Your task to perform on an android device: Find coffee shops on Maps Image 0: 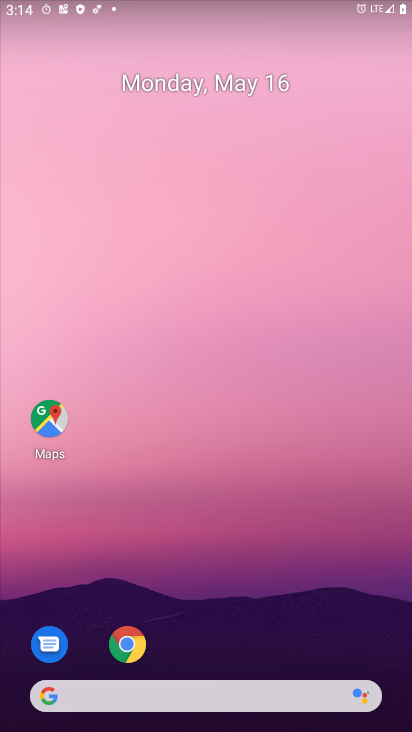
Step 0: drag from (259, 389) to (263, 221)
Your task to perform on an android device: Find coffee shops on Maps Image 1: 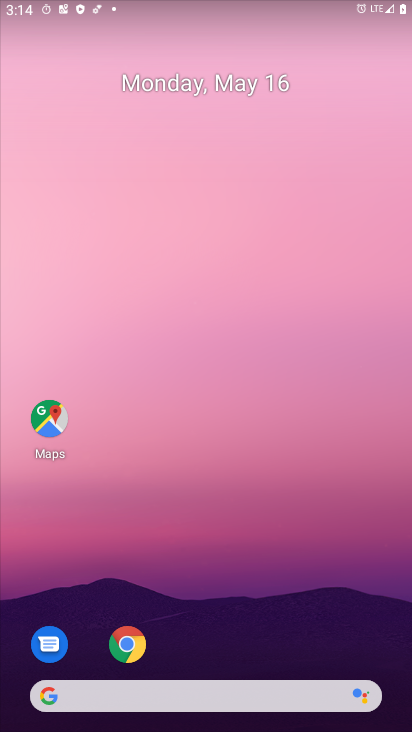
Step 1: drag from (231, 641) to (256, 210)
Your task to perform on an android device: Find coffee shops on Maps Image 2: 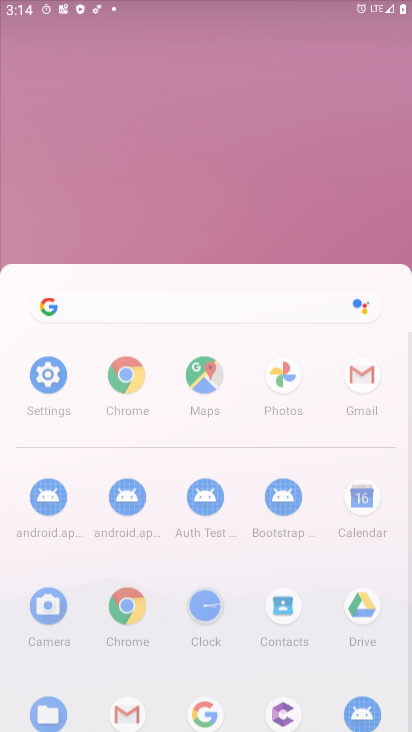
Step 2: click (246, 108)
Your task to perform on an android device: Find coffee shops on Maps Image 3: 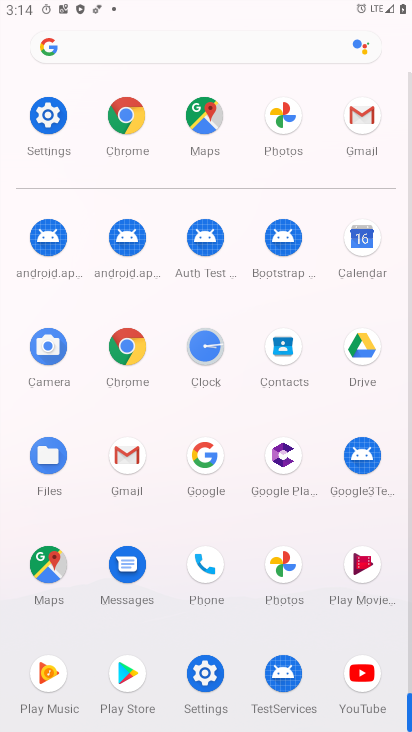
Step 3: click (217, 148)
Your task to perform on an android device: Find coffee shops on Maps Image 4: 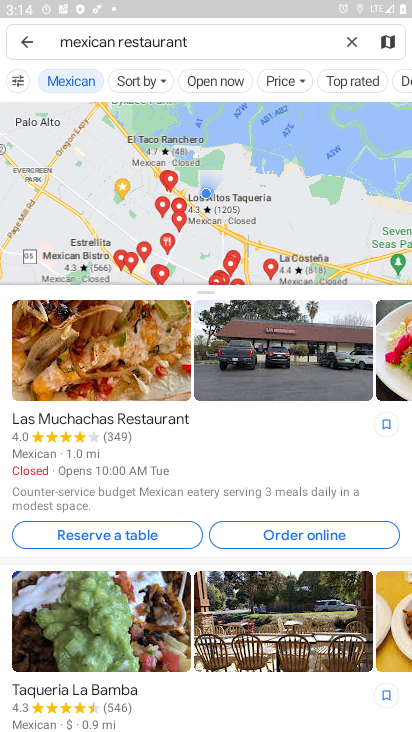
Step 4: click (354, 34)
Your task to perform on an android device: Find coffee shops on Maps Image 5: 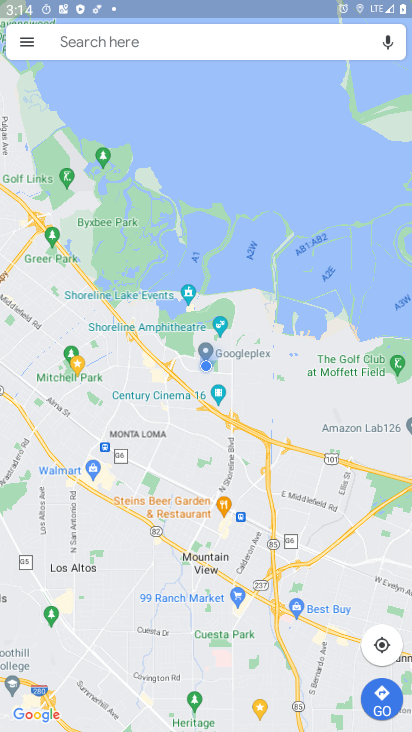
Step 5: click (252, 49)
Your task to perform on an android device: Find coffee shops on Maps Image 6: 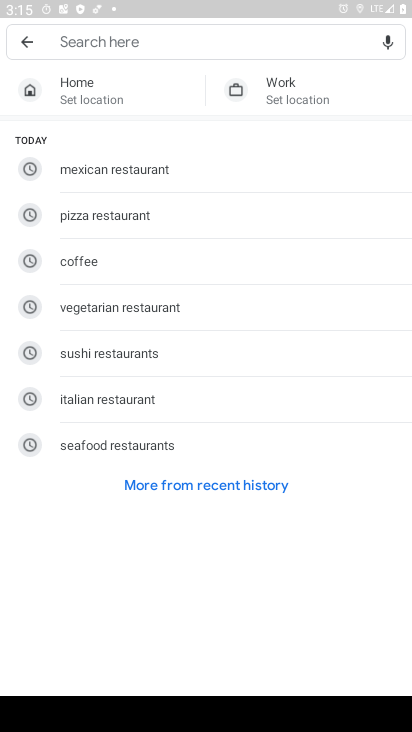
Step 6: type "coffee shops"
Your task to perform on an android device: Find coffee shops on Maps Image 7: 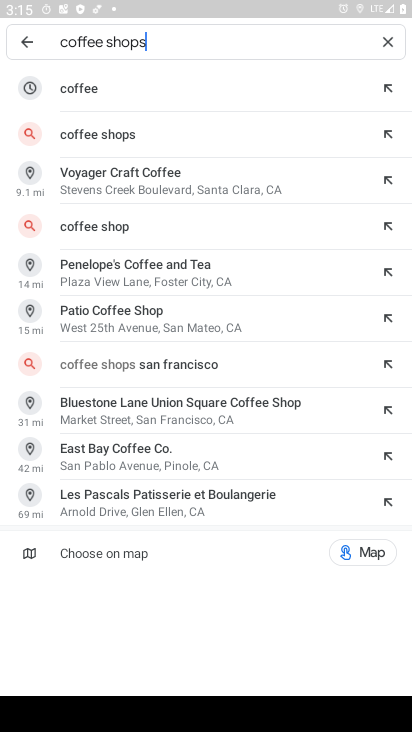
Step 7: click (143, 131)
Your task to perform on an android device: Find coffee shops on Maps Image 8: 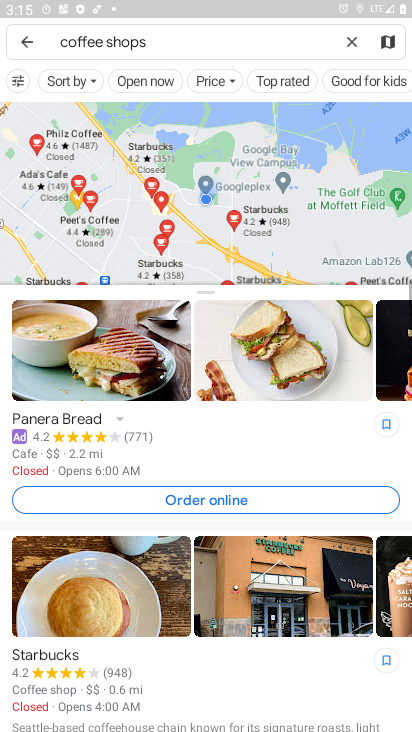
Step 8: task complete